Your task to perform on an android device: Turn off the flashlight Image 0: 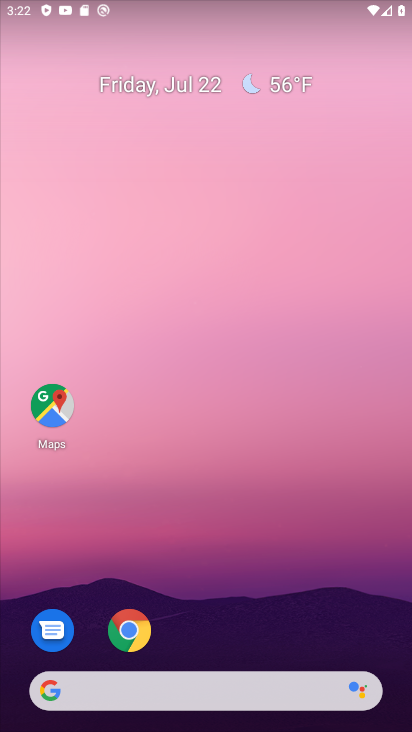
Step 0: drag from (354, 632) to (303, 195)
Your task to perform on an android device: Turn off the flashlight Image 1: 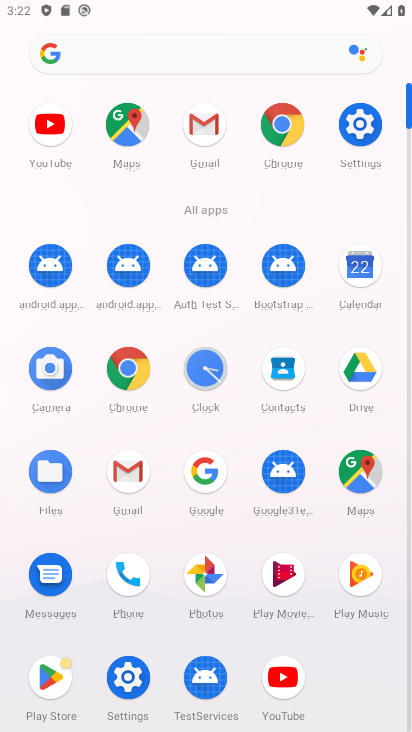
Step 1: drag from (305, 2) to (314, 423)
Your task to perform on an android device: Turn off the flashlight Image 2: 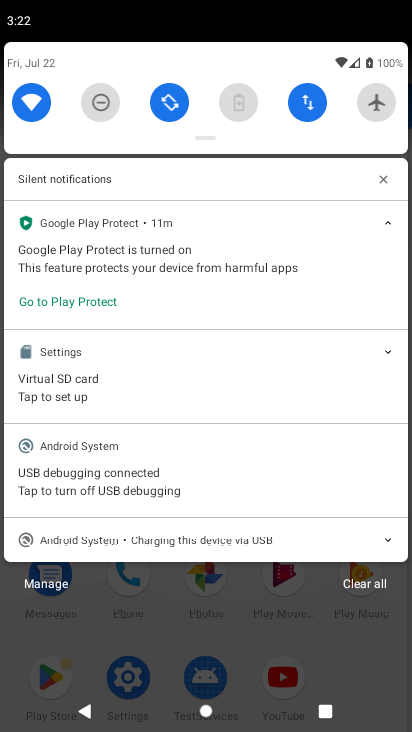
Step 2: click (232, 513)
Your task to perform on an android device: Turn off the flashlight Image 3: 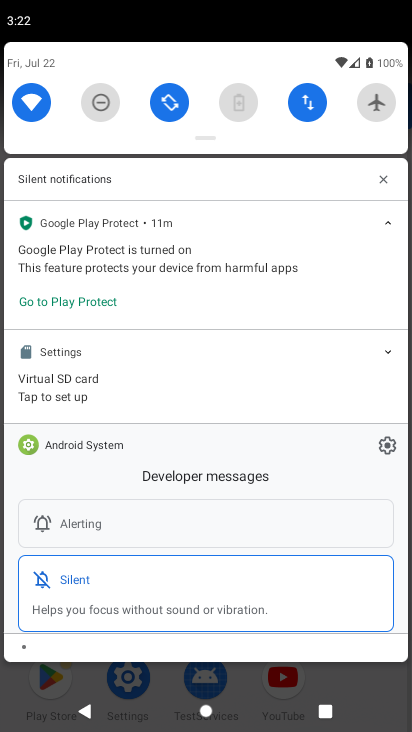
Step 3: drag from (199, 92) to (211, 511)
Your task to perform on an android device: Turn off the flashlight Image 4: 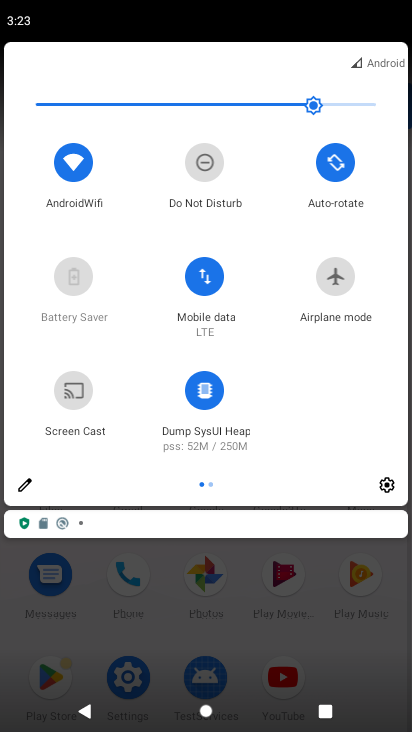
Step 4: click (21, 485)
Your task to perform on an android device: Turn off the flashlight Image 5: 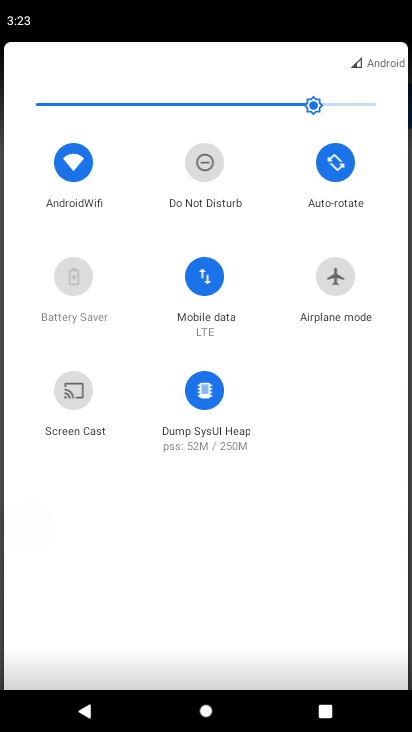
Step 5: task complete